Your task to perform on an android device: Go to Amazon Image 0: 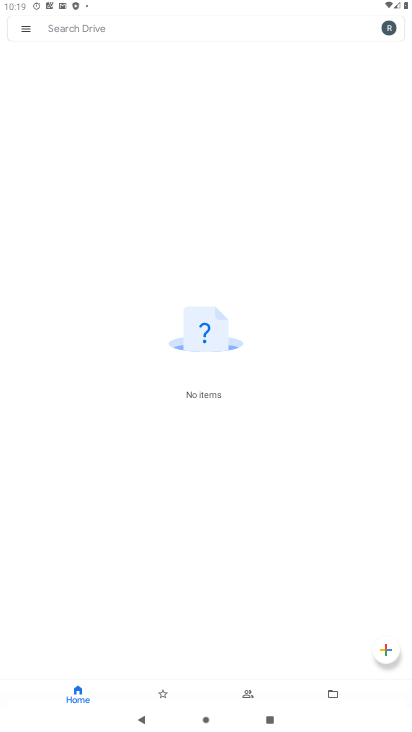
Step 0: press home button
Your task to perform on an android device: Go to Amazon Image 1: 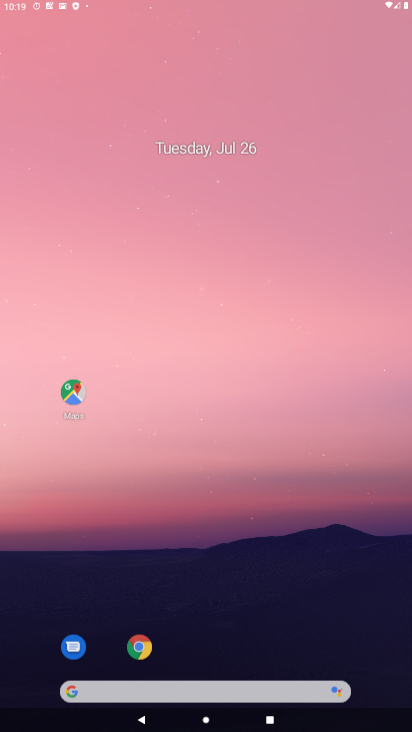
Step 1: drag from (187, 589) to (233, 93)
Your task to perform on an android device: Go to Amazon Image 2: 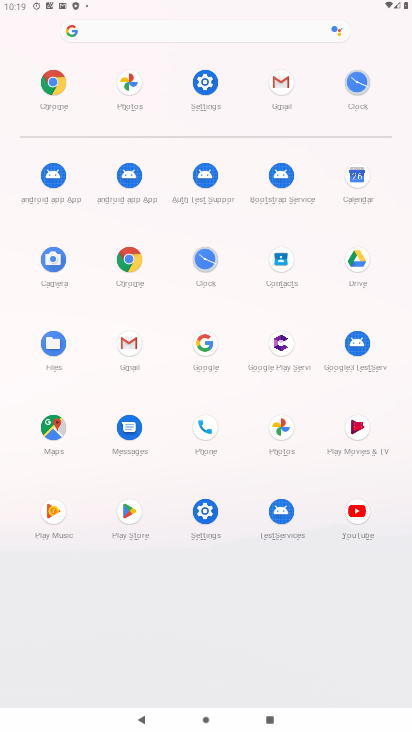
Step 2: click (131, 255)
Your task to perform on an android device: Go to Amazon Image 3: 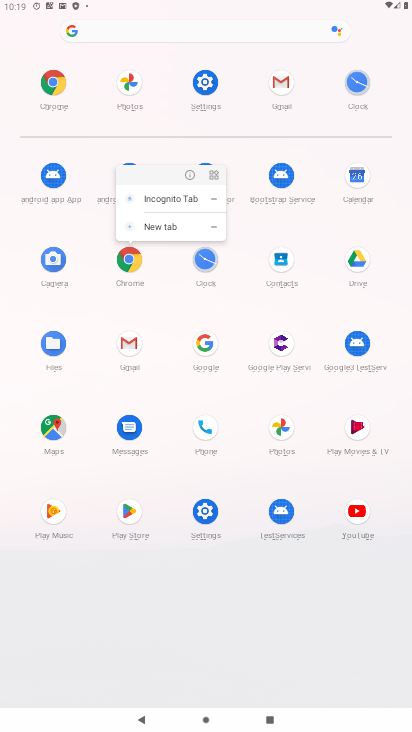
Step 3: click (186, 167)
Your task to perform on an android device: Go to Amazon Image 4: 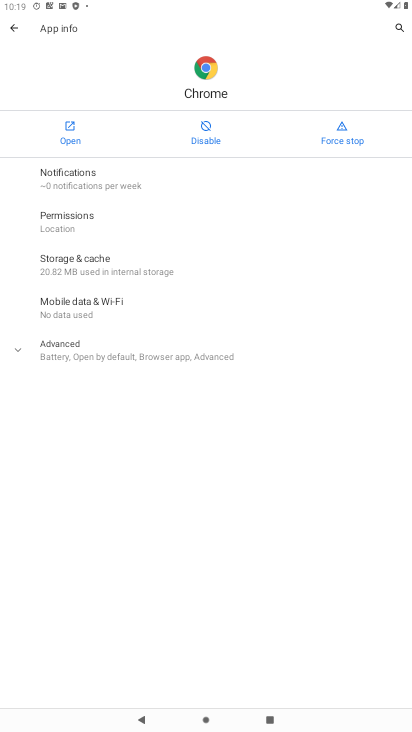
Step 4: click (54, 129)
Your task to perform on an android device: Go to Amazon Image 5: 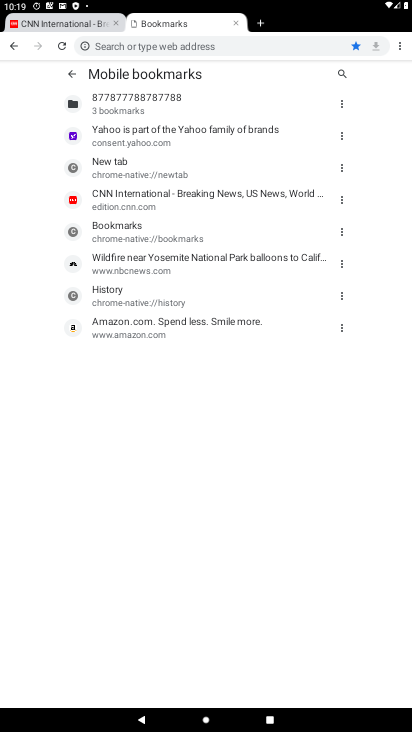
Step 5: click (181, 47)
Your task to perform on an android device: Go to Amazon Image 6: 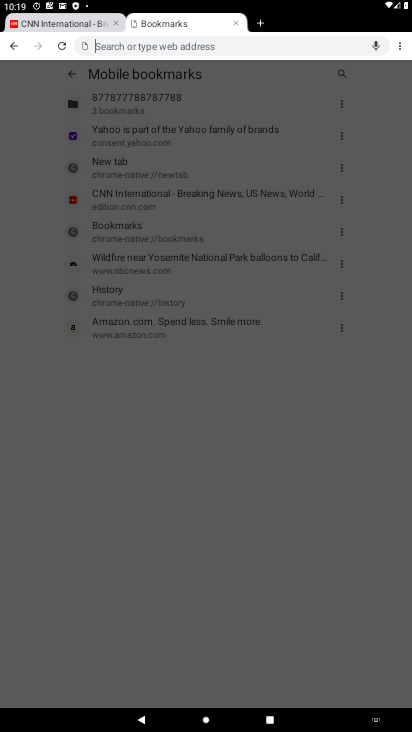
Step 6: type "amazon"
Your task to perform on an android device: Go to Amazon Image 7: 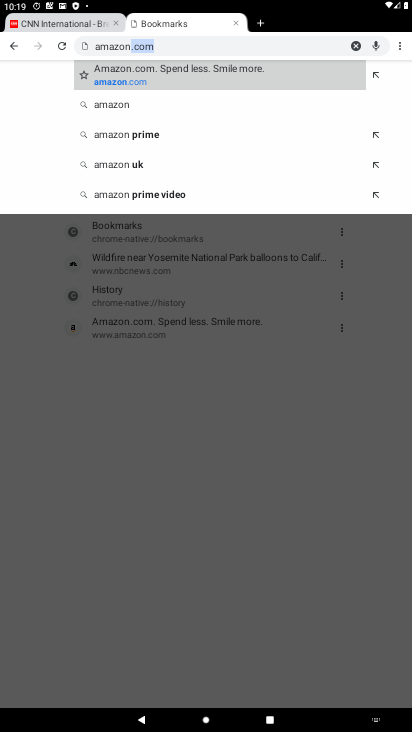
Step 7: click (121, 85)
Your task to perform on an android device: Go to Amazon Image 8: 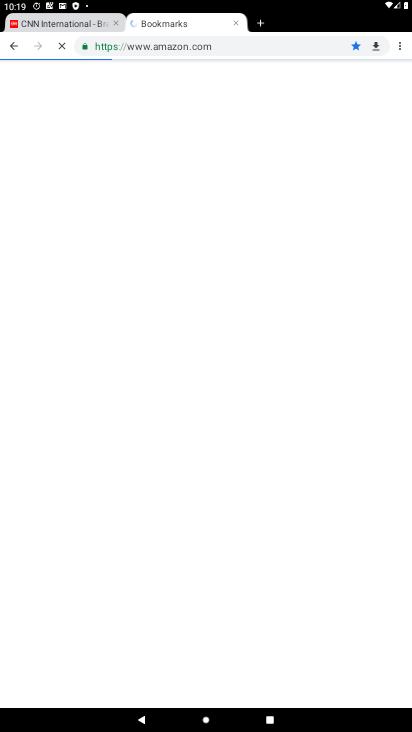
Step 8: task complete